Your task to perform on an android device: How much does a 3 bedroom apartment rent for in Denver? Image 0: 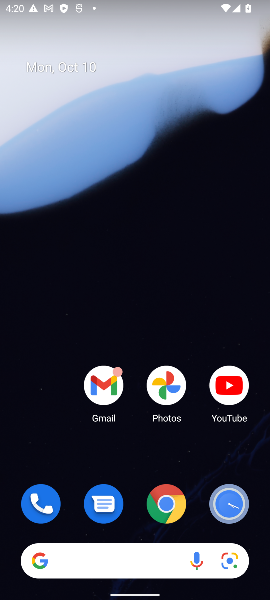
Step 0: drag from (140, 402) to (201, 95)
Your task to perform on an android device: How much does a 3 bedroom apartment rent for in Denver? Image 1: 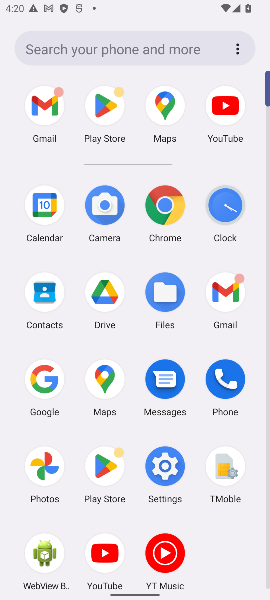
Step 1: click (152, 197)
Your task to perform on an android device: How much does a 3 bedroom apartment rent for in Denver? Image 2: 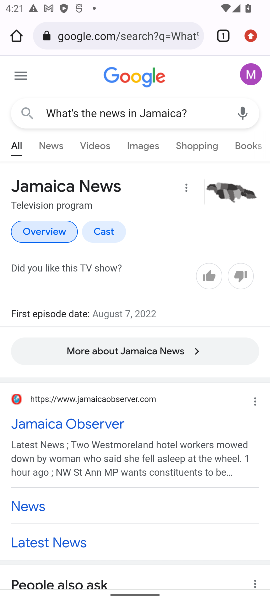
Step 2: click (171, 26)
Your task to perform on an android device: How much does a 3 bedroom apartment rent for in Denver? Image 3: 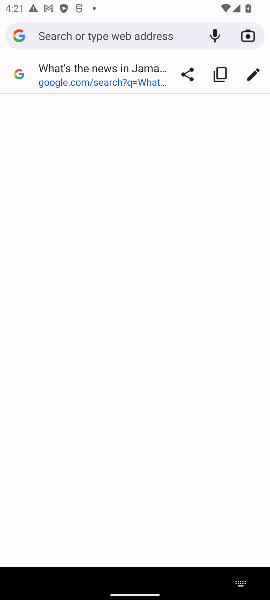
Step 3: type "How much does a 3 bedroom apartment rent for in Denver?"
Your task to perform on an android device: How much does a 3 bedroom apartment rent for in Denver? Image 4: 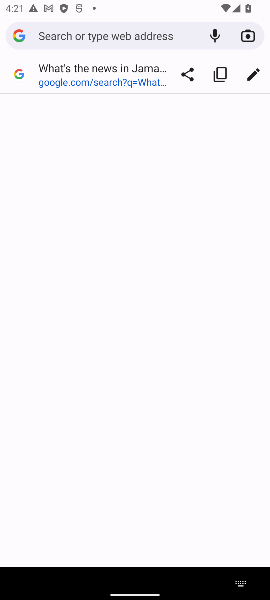
Step 4: click (130, 43)
Your task to perform on an android device: How much does a 3 bedroom apartment rent for in Denver? Image 5: 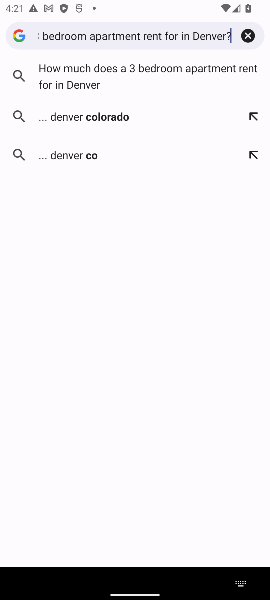
Step 5: press enter
Your task to perform on an android device: How much does a 3 bedroom apartment rent for in Denver? Image 6: 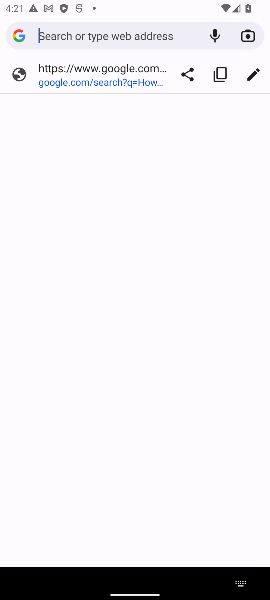
Step 6: type "How much does a 3 bedroom apartment rent for in Denver?"
Your task to perform on an android device: How much does a 3 bedroom apartment rent for in Denver? Image 7: 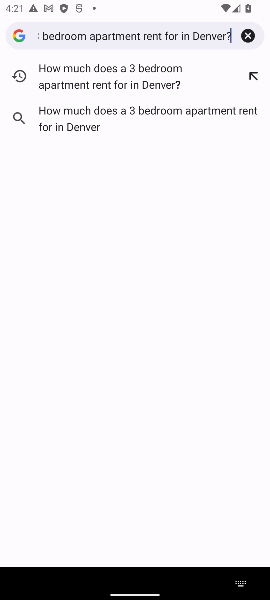
Step 7: press enter
Your task to perform on an android device: How much does a 3 bedroom apartment rent for in Denver? Image 8: 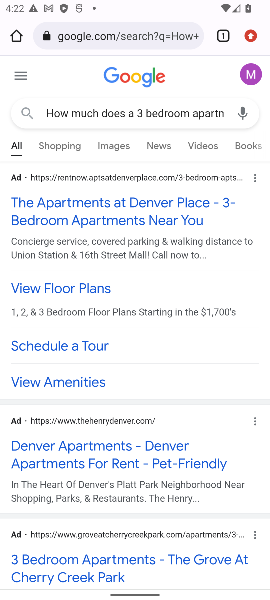
Step 8: click (124, 216)
Your task to perform on an android device: How much does a 3 bedroom apartment rent for in Denver? Image 9: 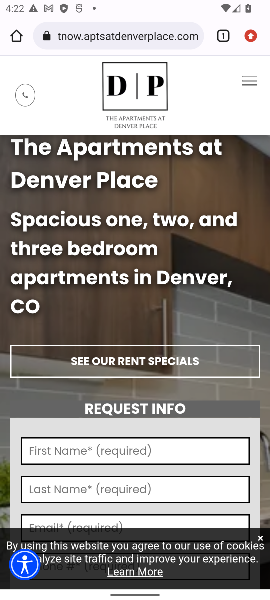
Step 9: task complete